Your task to perform on an android device: Go to sound settings Image 0: 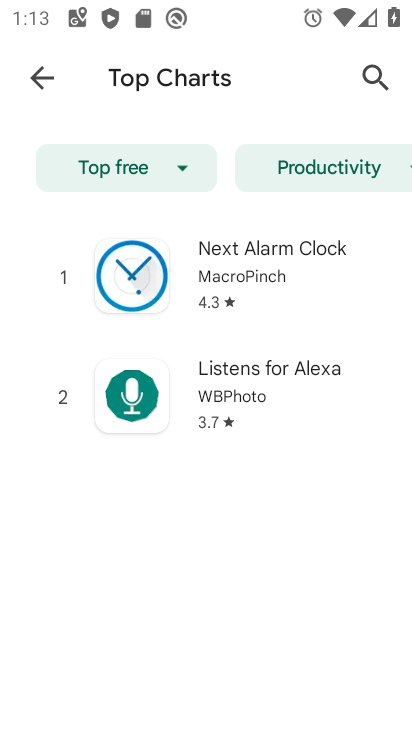
Step 0: press home button
Your task to perform on an android device: Go to sound settings Image 1: 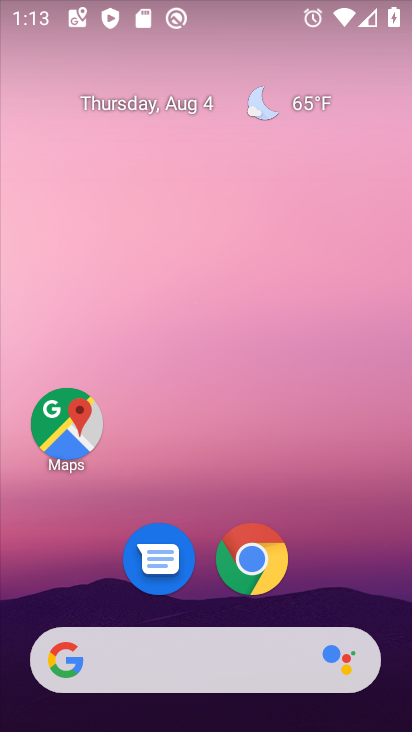
Step 1: drag from (213, 660) to (217, 269)
Your task to perform on an android device: Go to sound settings Image 2: 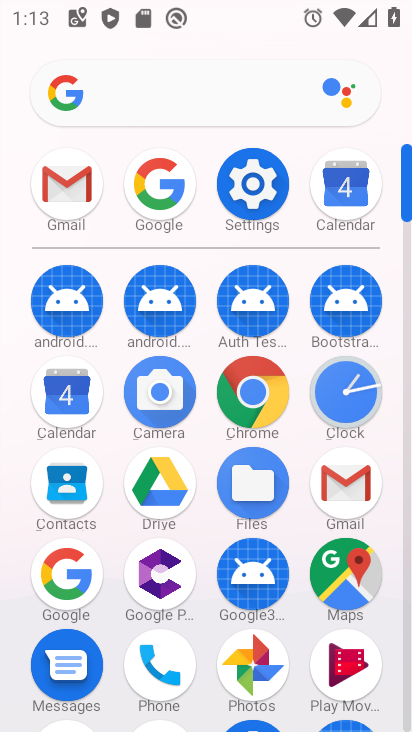
Step 2: click (251, 185)
Your task to perform on an android device: Go to sound settings Image 3: 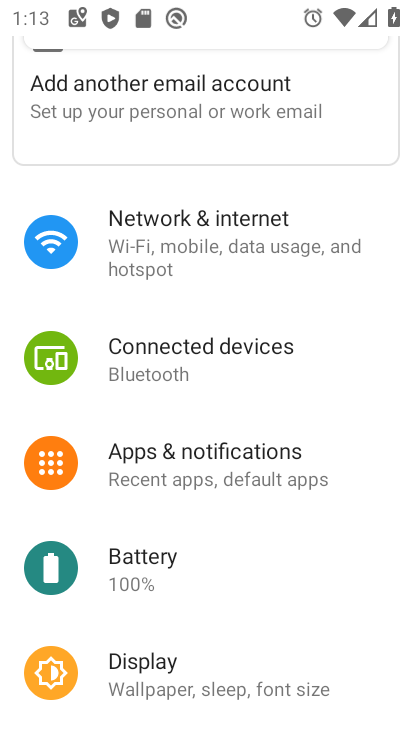
Step 3: drag from (173, 645) to (234, 514)
Your task to perform on an android device: Go to sound settings Image 4: 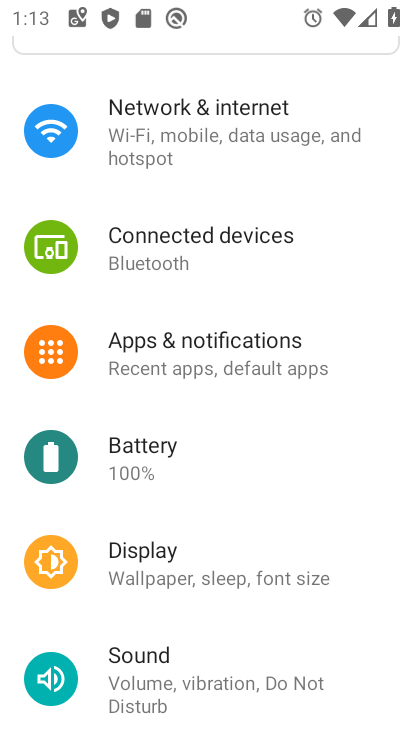
Step 4: drag from (193, 619) to (254, 518)
Your task to perform on an android device: Go to sound settings Image 5: 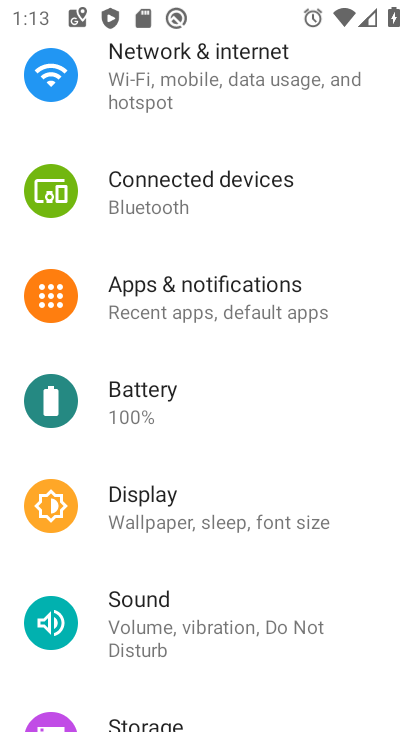
Step 5: click (166, 621)
Your task to perform on an android device: Go to sound settings Image 6: 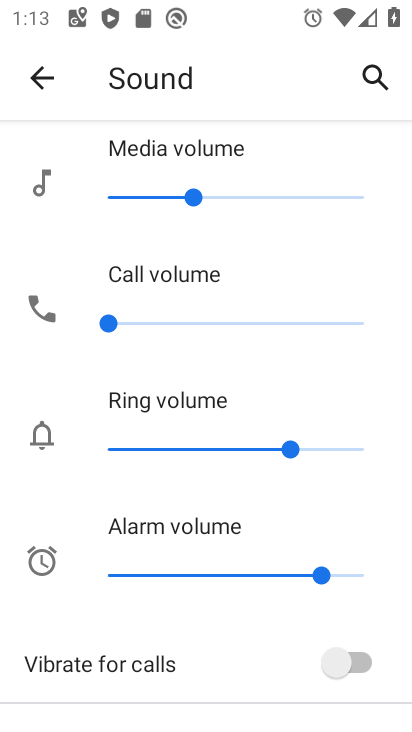
Step 6: task complete